Your task to perform on an android device: Open Chrome and go to the settings page Image 0: 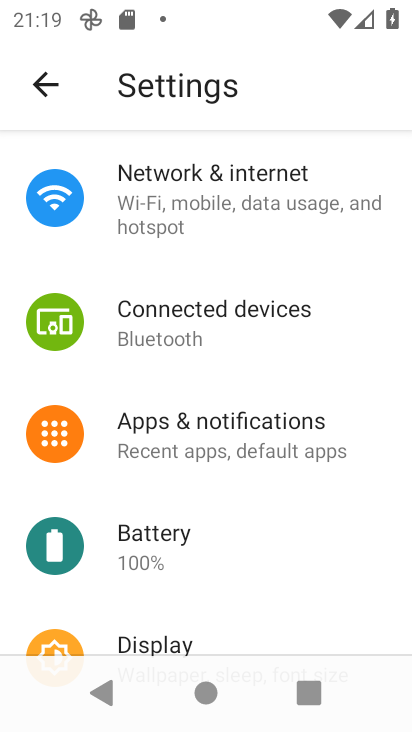
Step 0: press home button
Your task to perform on an android device: Open Chrome and go to the settings page Image 1: 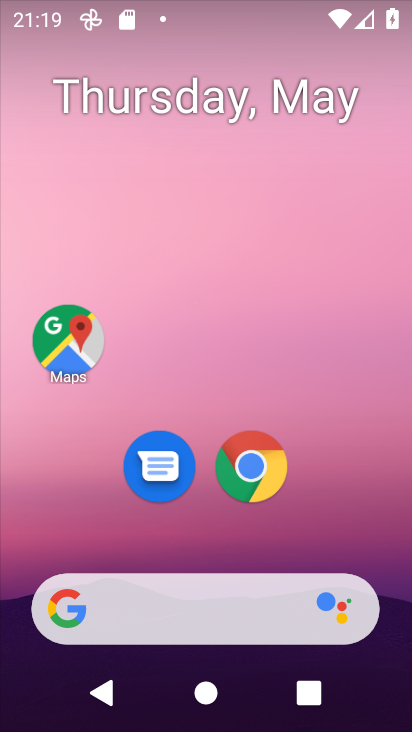
Step 1: drag from (367, 507) to (322, 25)
Your task to perform on an android device: Open Chrome and go to the settings page Image 2: 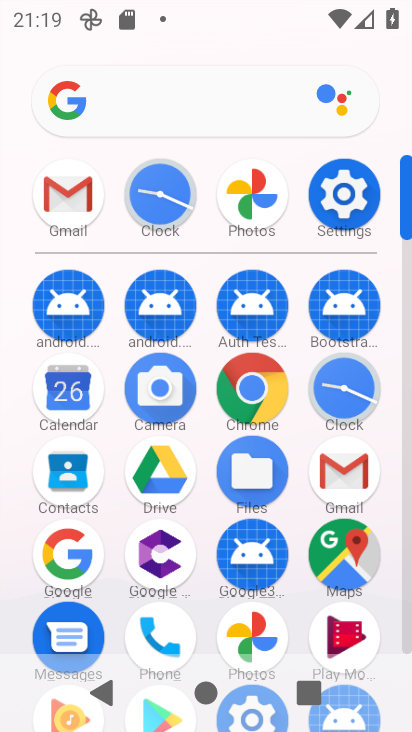
Step 2: click (264, 397)
Your task to perform on an android device: Open Chrome and go to the settings page Image 3: 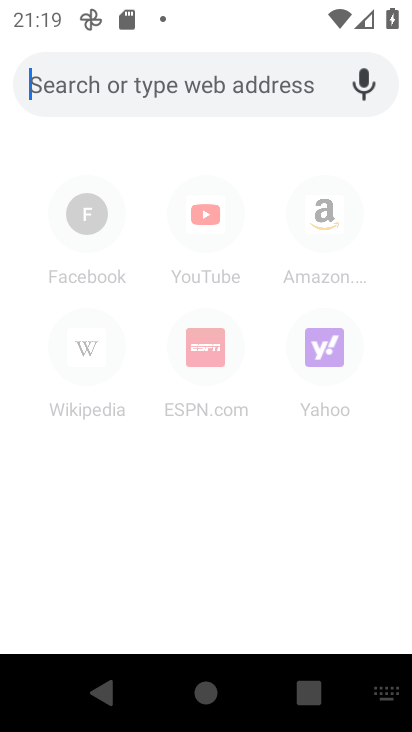
Step 3: click (113, 694)
Your task to perform on an android device: Open Chrome and go to the settings page Image 4: 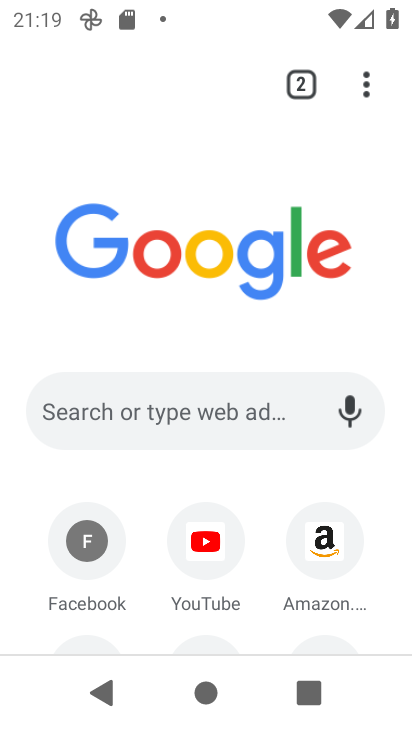
Step 4: click (373, 84)
Your task to perform on an android device: Open Chrome and go to the settings page Image 5: 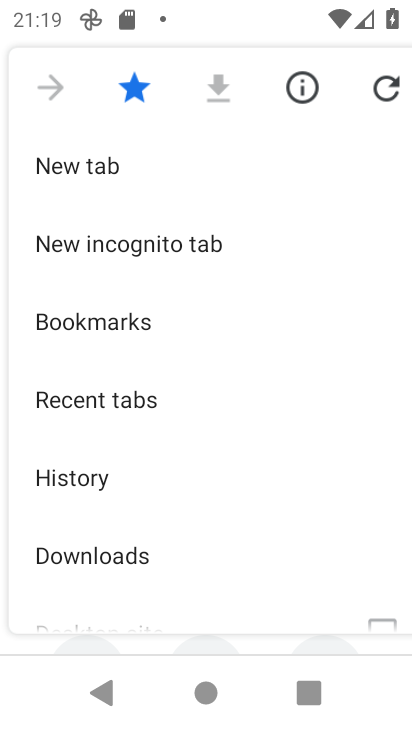
Step 5: drag from (150, 592) to (136, 229)
Your task to perform on an android device: Open Chrome and go to the settings page Image 6: 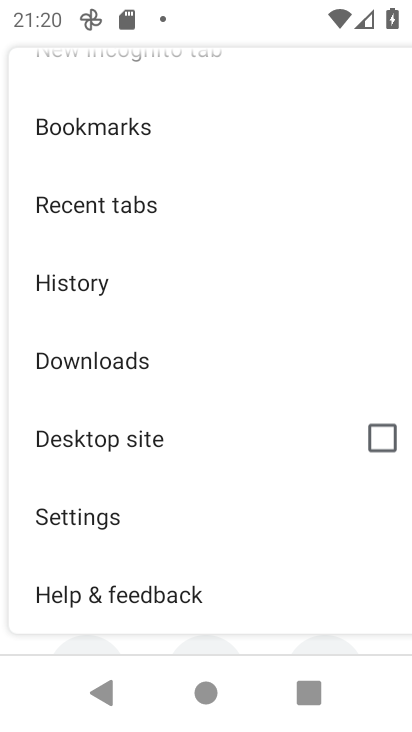
Step 6: click (143, 509)
Your task to perform on an android device: Open Chrome and go to the settings page Image 7: 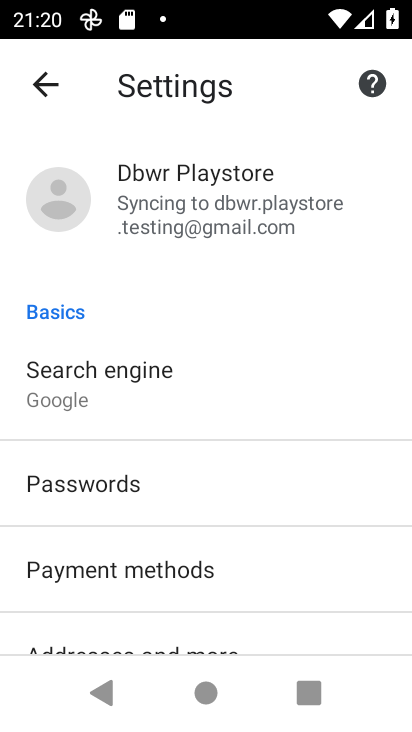
Step 7: drag from (254, 545) to (270, 236)
Your task to perform on an android device: Open Chrome and go to the settings page Image 8: 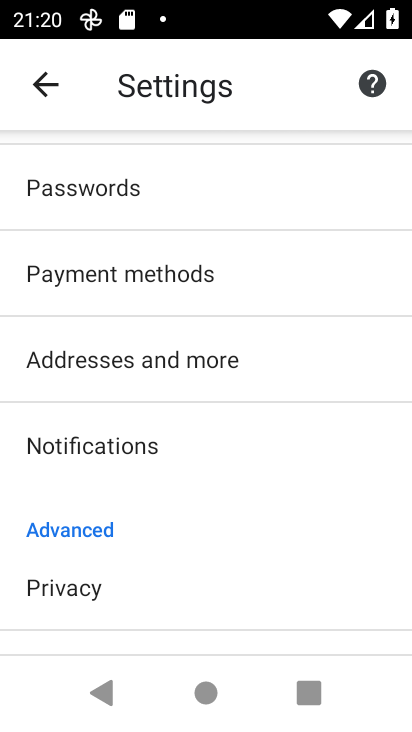
Step 8: drag from (143, 583) to (168, 322)
Your task to perform on an android device: Open Chrome and go to the settings page Image 9: 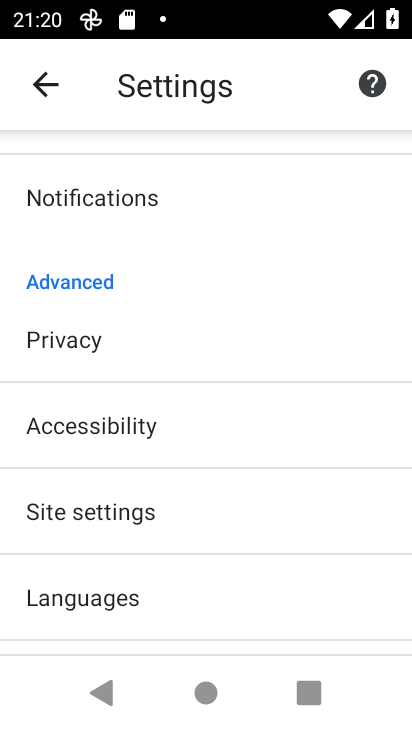
Step 9: click (205, 523)
Your task to perform on an android device: Open Chrome and go to the settings page Image 10: 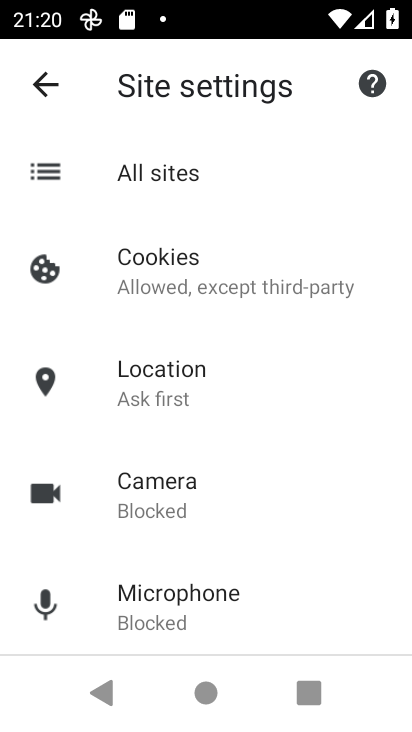
Step 10: task complete